Your task to perform on an android device: turn on improve location accuracy Image 0: 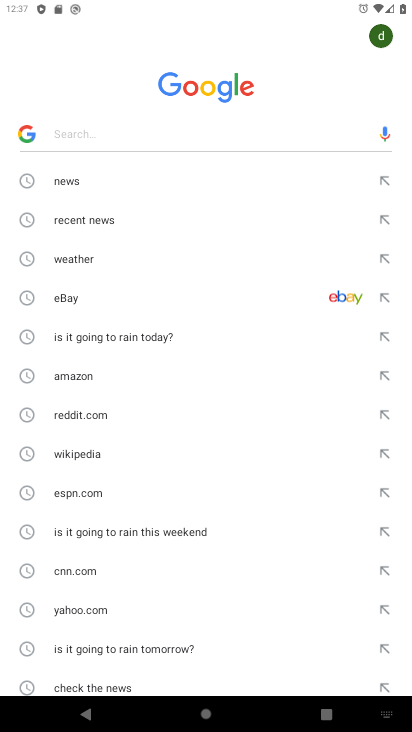
Step 0: press home button
Your task to perform on an android device: turn on improve location accuracy Image 1: 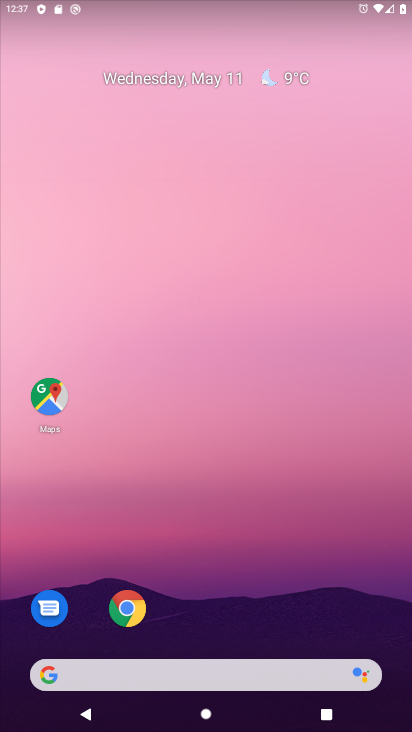
Step 1: drag from (265, 655) to (199, 291)
Your task to perform on an android device: turn on improve location accuracy Image 2: 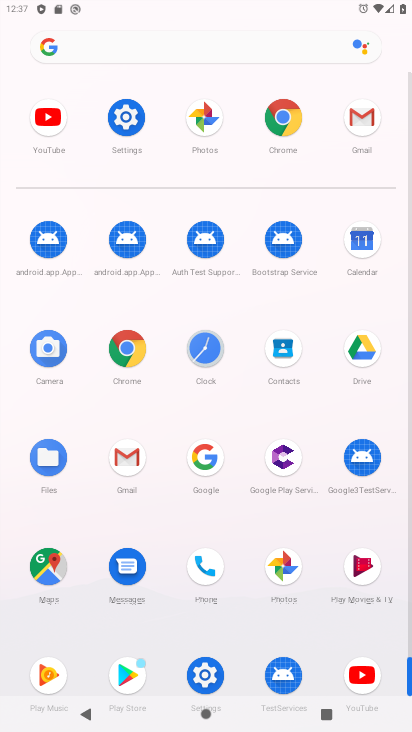
Step 2: click (116, 122)
Your task to perform on an android device: turn on improve location accuracy Image 3: 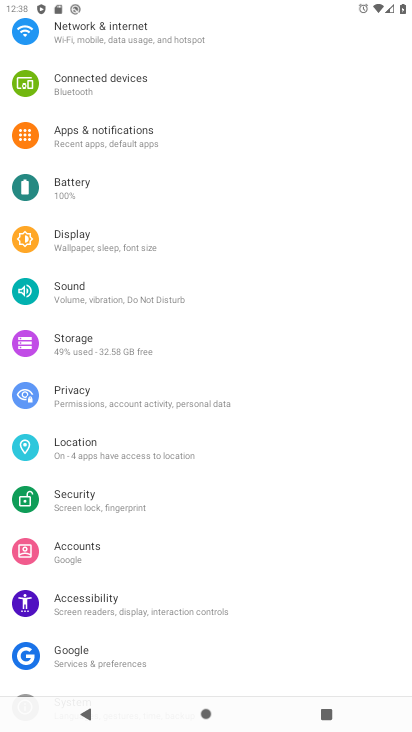
Step 3: click (150, 449)
Your task to perform on an android device: turn on improve location accuracy Image 4: 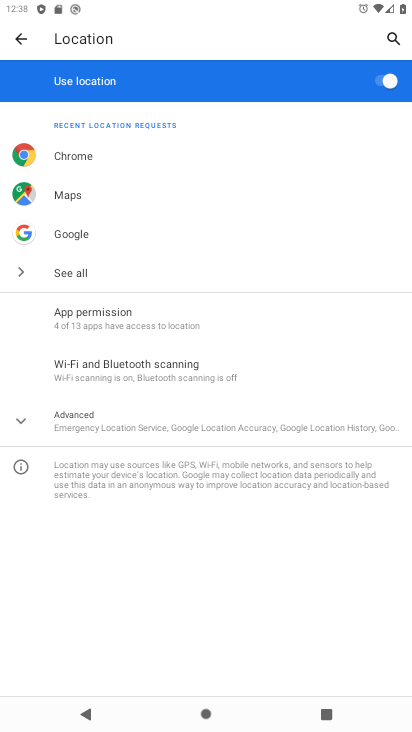
Step 4: click (187, 423)
Your task to perform on an android device: turn on improve location accuracy Image 5: 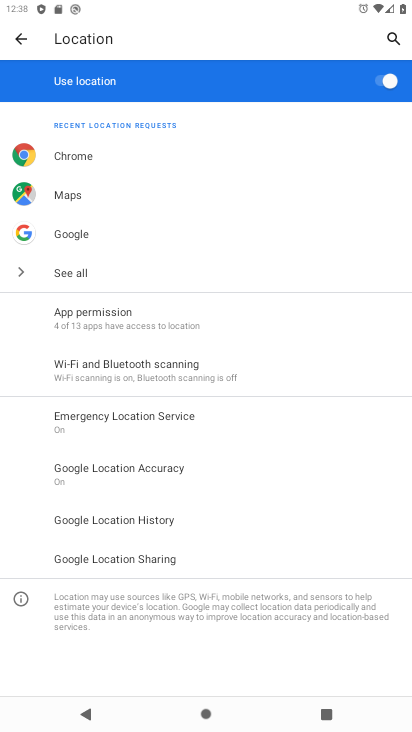
Step 5: click (171, 472)
Your task to perform on an android device: turn on improve location accuracy Image 6: 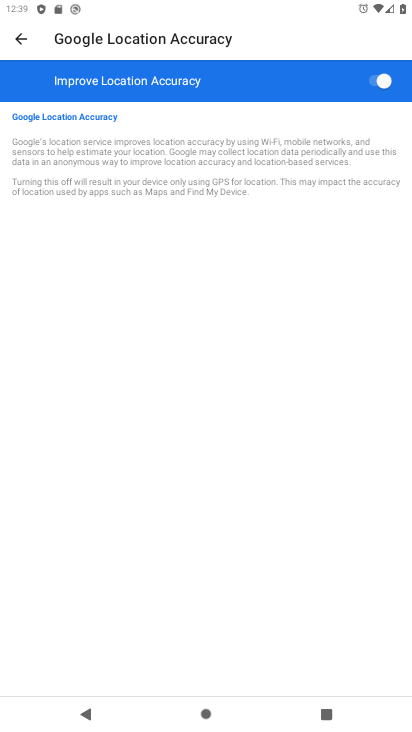
Step 6: task complete